Your task to perform on an android device: Open calendar and show me the second week of next month Image 0: 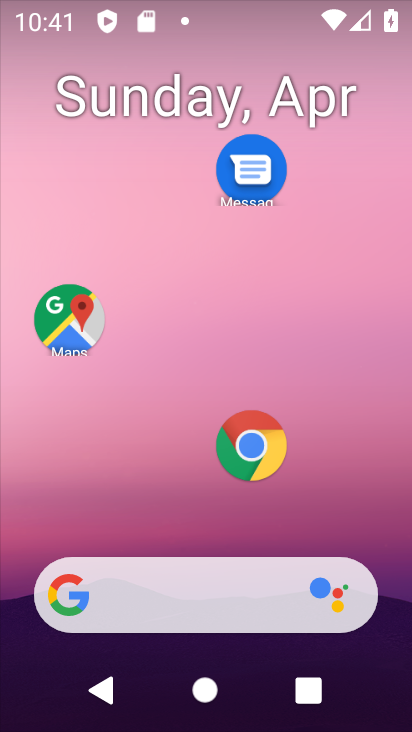
Step 0: drag from (171, 587) to (323, 116)
Your task to perform on an android device: Open calendar and show me the second week of next month Image 1: 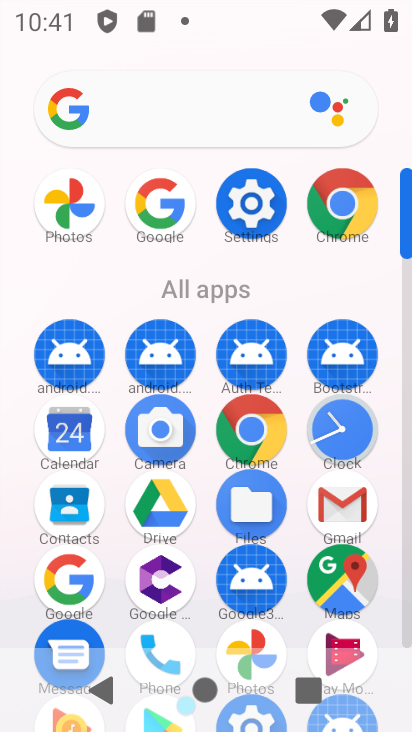
Step 1: click (76, 440)
Your task to perform on an android device: Open calendar and show me the second week of next month Image 2: 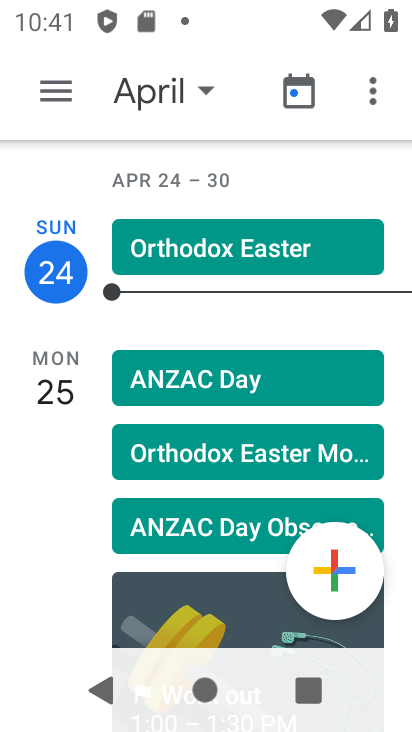
Step 2: click (69, 448)
Your task to perform on an android device: Open calendar and show me the second week of next month Image 3: 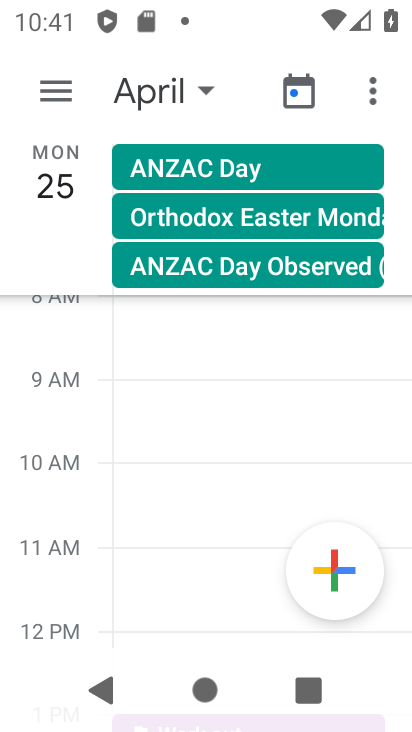
Step 3: click (134, 95)
Your task to perform on an android device: Open calendar and show me the second week of next month Image 4: 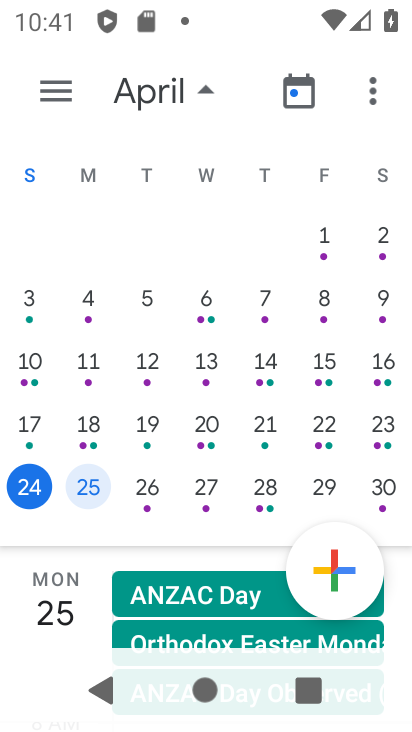
Step 4: drag from (369, 397) to (7, 379)
Your task to perform on an android device: Open calendar and show me the second week of next month Image 5: 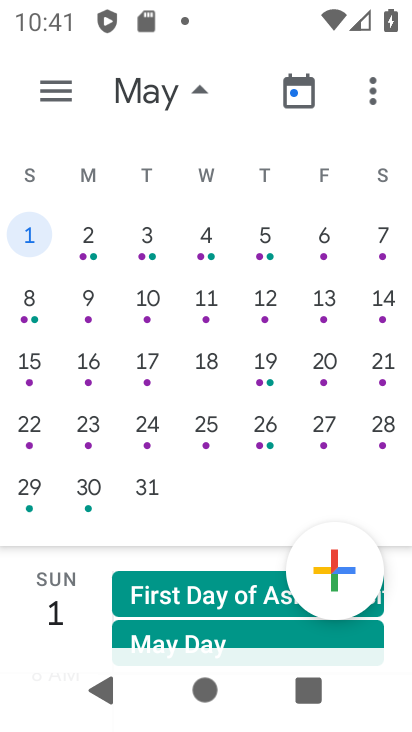
Step 5: click (29, 307)
Your task to perform on an android device: Open calendar and show me the second week of next month Image 6: 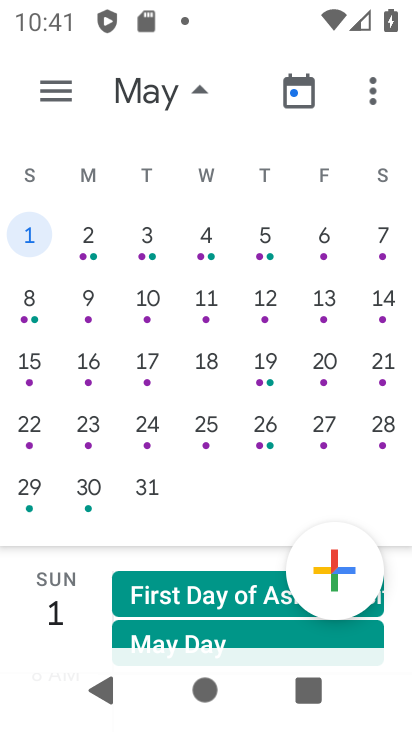
Step 6: click (32, 294)
Your task to perform on an android device: Open calendar and show me the second week of next month Image 7: 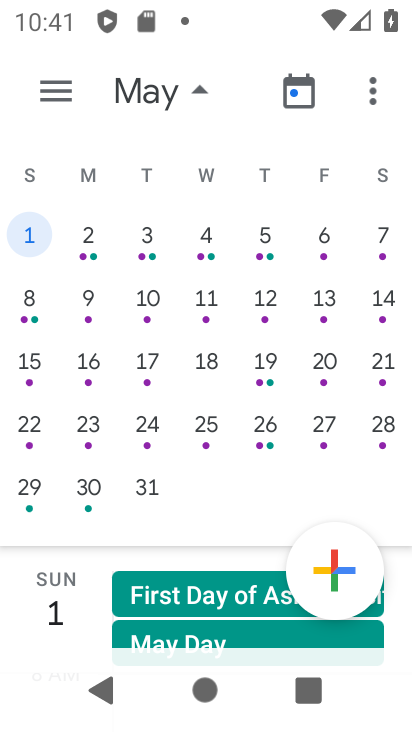
Step 7: click (36, 304)
Your task to perform on an android device: Open calendar and show me the second week of next month Image 8: 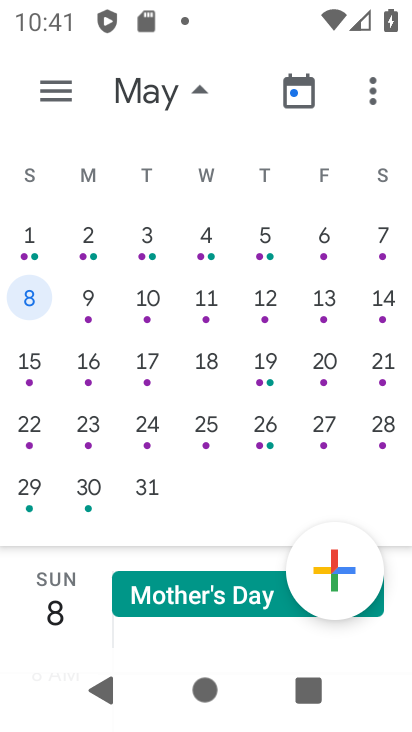
Step 8: click (61, 88)
Your task to perform on an android device: Open calendar and show me the second week of next month Image 9: 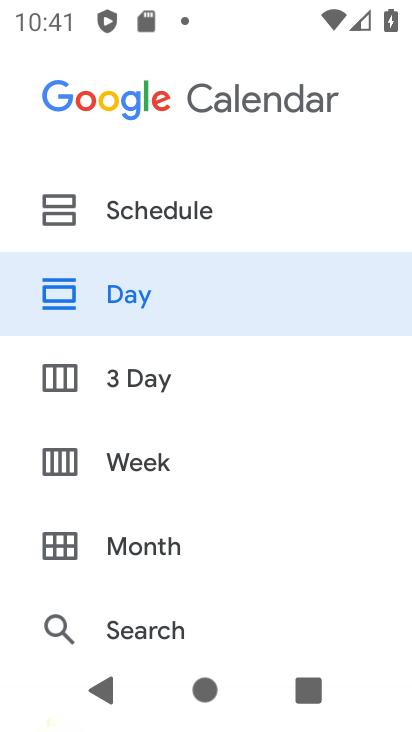
Step 9: click (150, 465)
Your task to perform on an android device: Open calendar and show me the second week of next month Image 10: 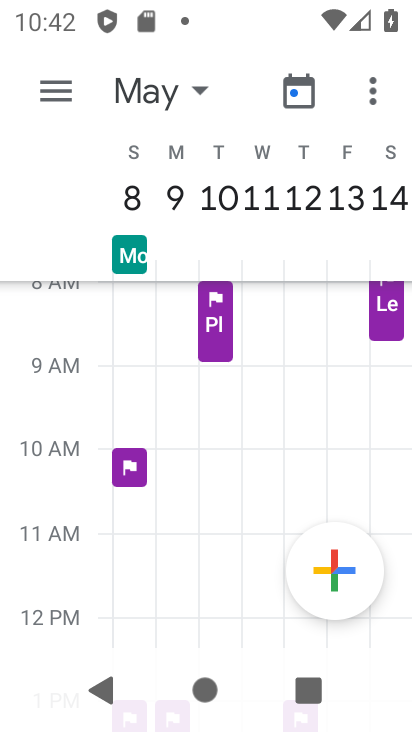
Step 10: task complete